Your task to perform on an android device: toggle improve location accuracy Image 0: 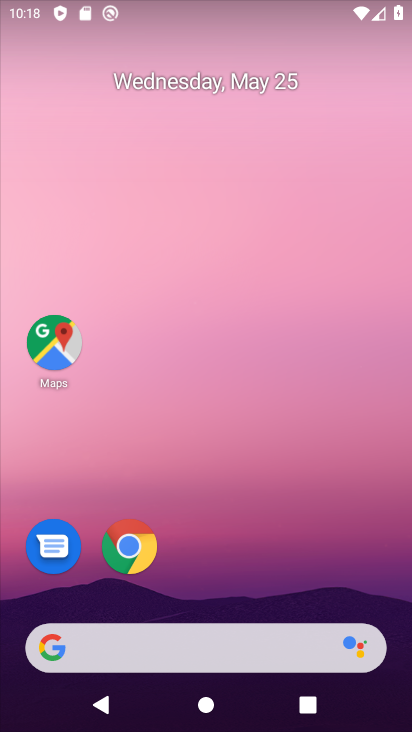
Step 0: drag from (312, 560) to (307, 0)
Your task to perform on an android device: toggle improve location accuracy Image 1: 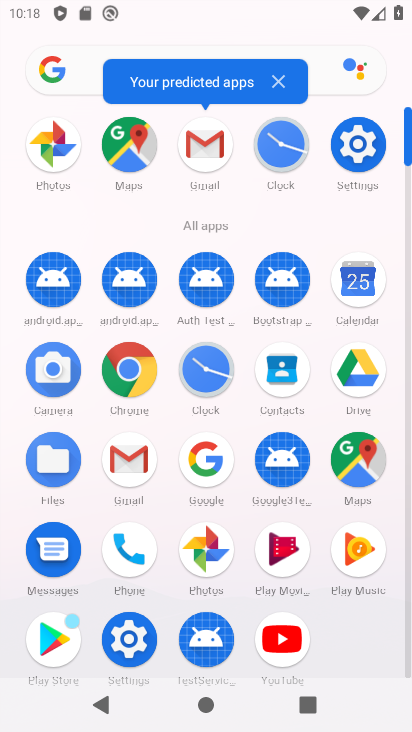
Step 1: click (364, 159)
Your task to perform on an android device: toggle improve location accuracy Image 2: 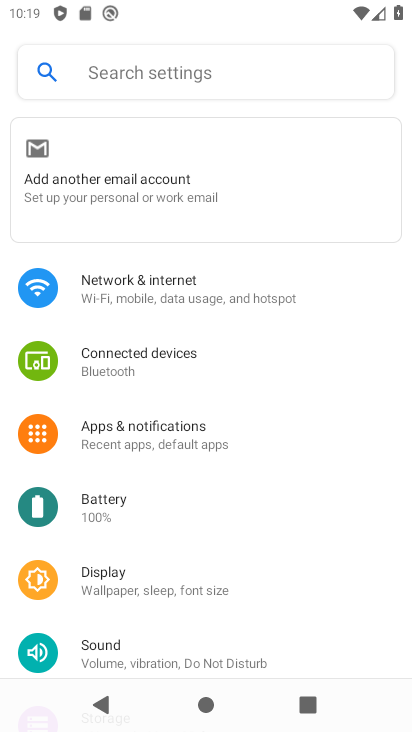
Step 2: drag from (229, 546) to (214, 195)
Your task to perform on an android device: toggle improve location accuracy Image 3: 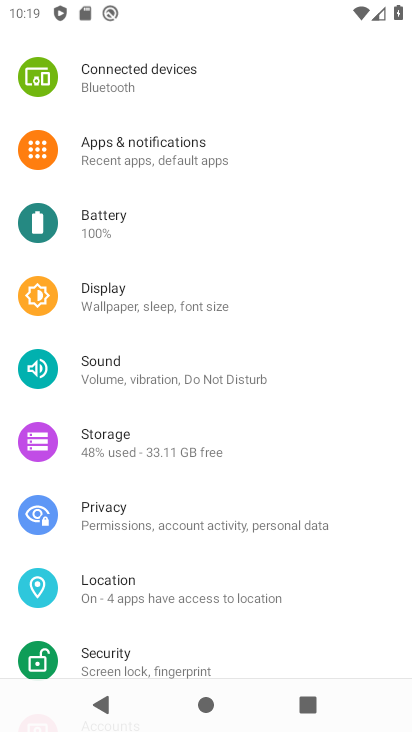
Step 3: click (188, 603)
Your task to perform on an android device: toggle improve location accuracy Image 4: 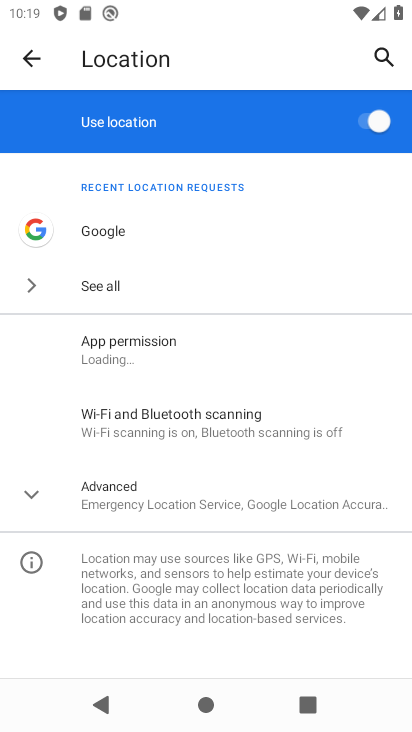
Step 4: click (150, 504)
Your task to perform on an android device: toggle improve location accuracy Image 5: 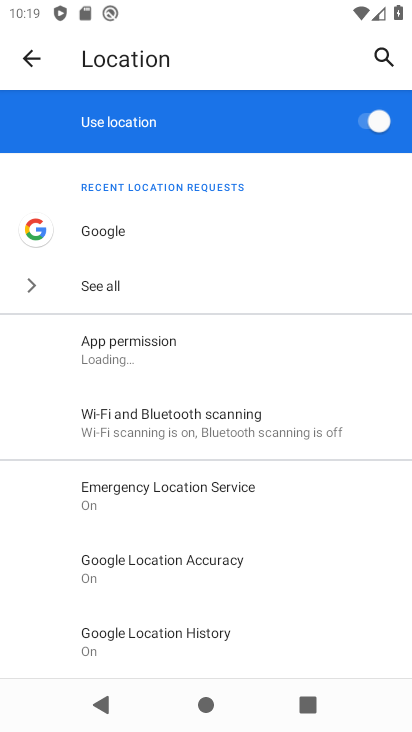
Step 5: click (204, 568)
Your task to perform on an android device: toggle improve location accuracy Image 6: 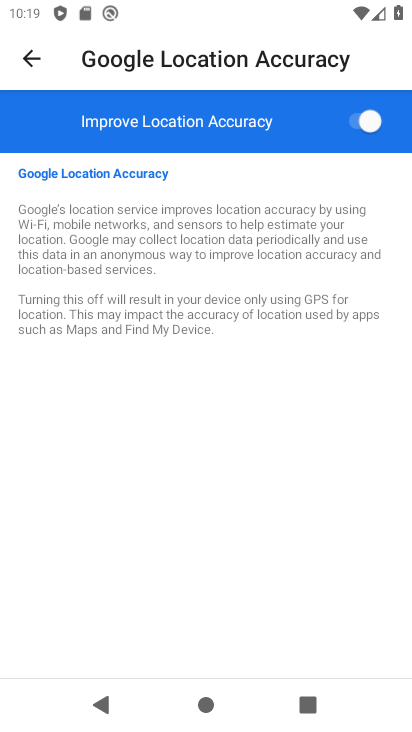
Step 6: click (368, 127)
Your task to perform on an android device: toggle improve location accuracy Image 7: 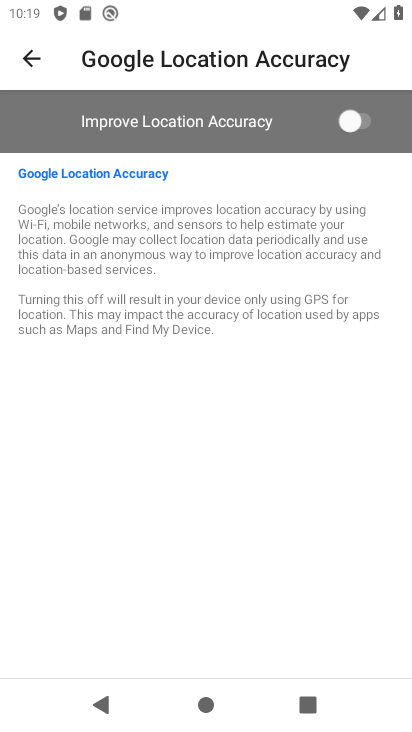
Step 7: task complete